Your task to perform on an android device: turn vacation reply on in the gmail app Image 0: 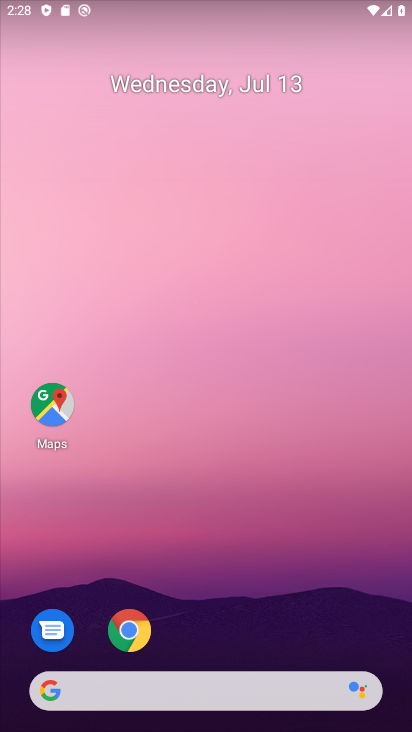
Step 0: drag from (348, 649) to (258, 238)
Your task to perform on an android device: turn vacation reply on in the gmail app Image 1: 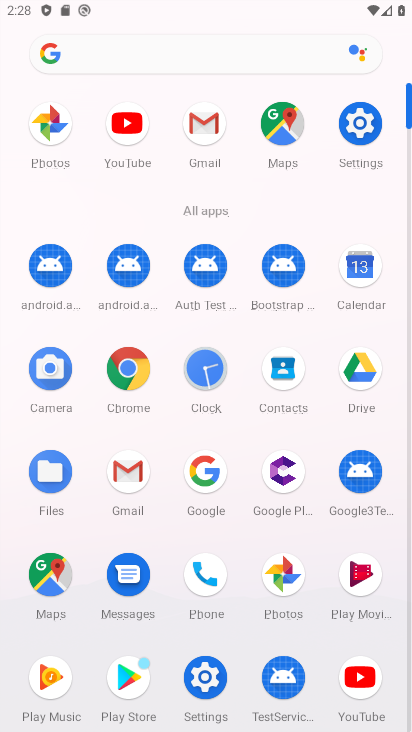
Step 1: click (206, 128)
Your task to perform on an android device: turn vacation reply on in the gmail app Image 2: 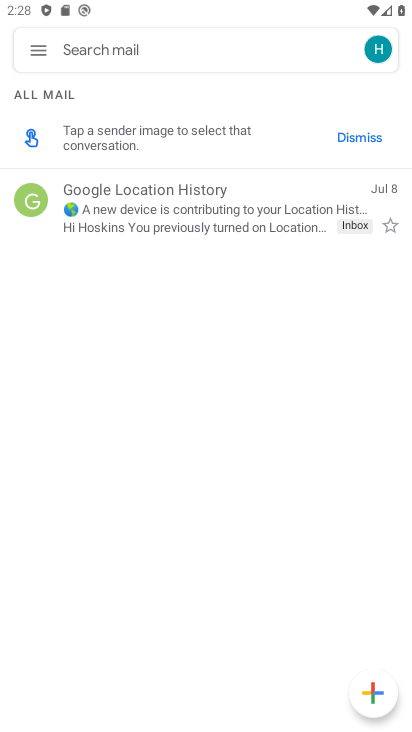
Step 2: click (40, 56)
Your task to perform on an android device: turn vacation reply on in the gmail app Image 3: 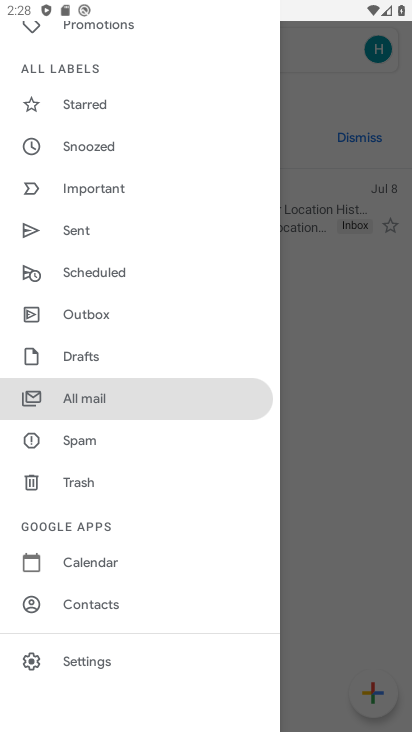
Step 3: click (128, 666)
Your task to perform on an android device: turn vacation reply on in the gmail app Image 4: 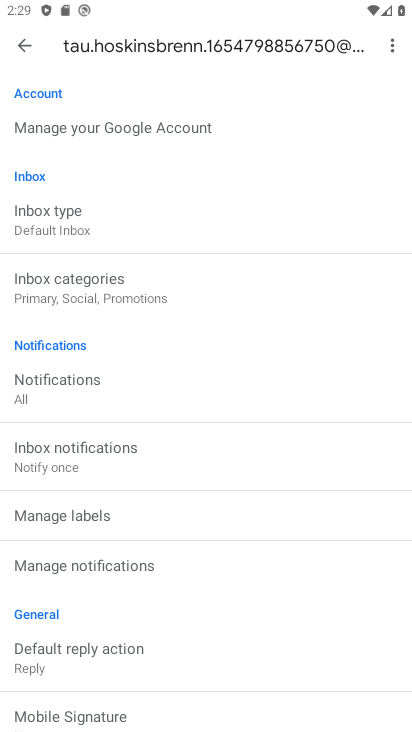
Step 4: drag from (240, 624) to (176, 135)
Your task to perform on an android device: turn vacation reply on in the gmail app Image 5: 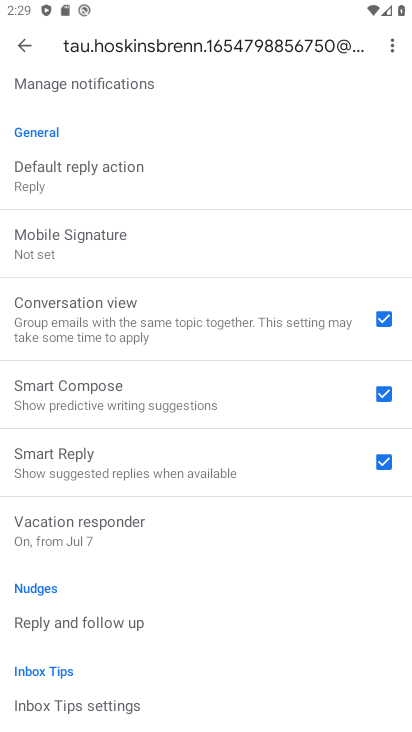
Step 5: click (185, 527)
Your task to perform on an android device: turn vacation reply on in the gmail app Image 6: 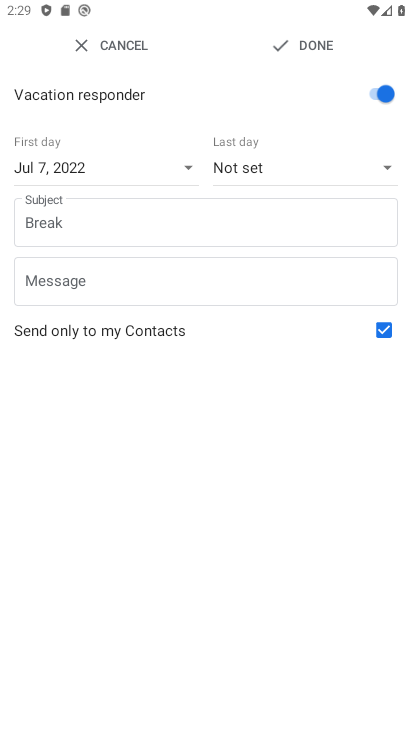
Step 6: click (332, 50)
Your task to perform on an android device: turn vacation reply on in the gmail app Image 7: 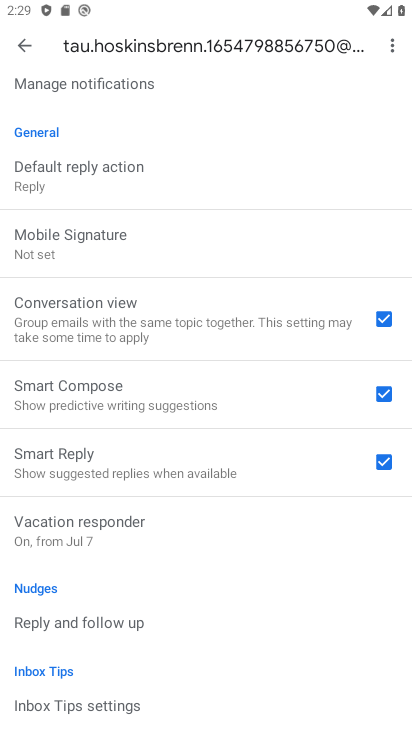
Step 7: task complete